Your task to perform on an android device: check the backup settings in the google photos Image 0: 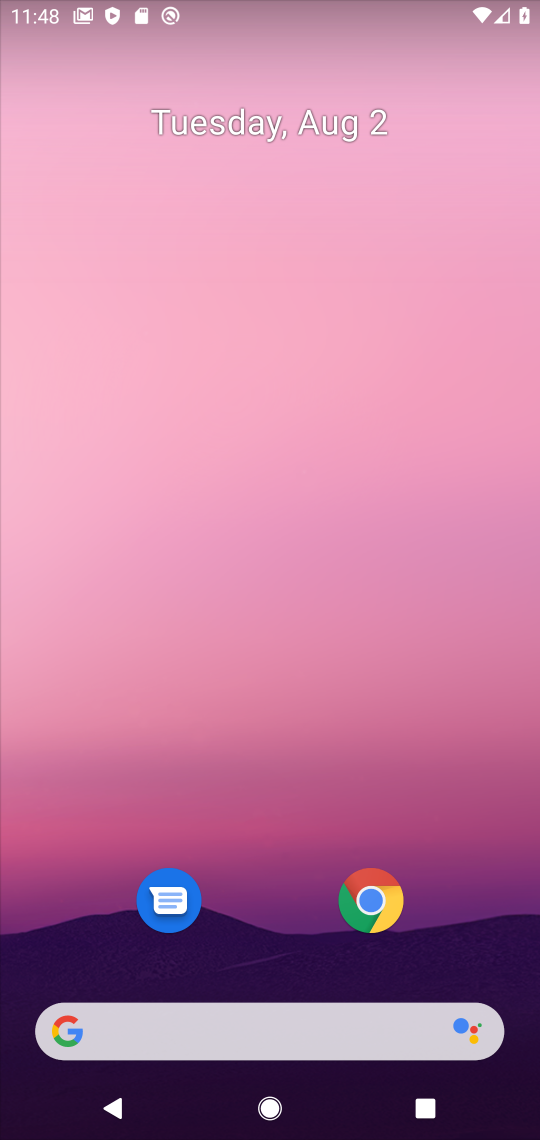
Step 0: drag from (242, 906) to (285, 207)
Your task to perform on an android device: check the backup settings in the google photos Image 1: 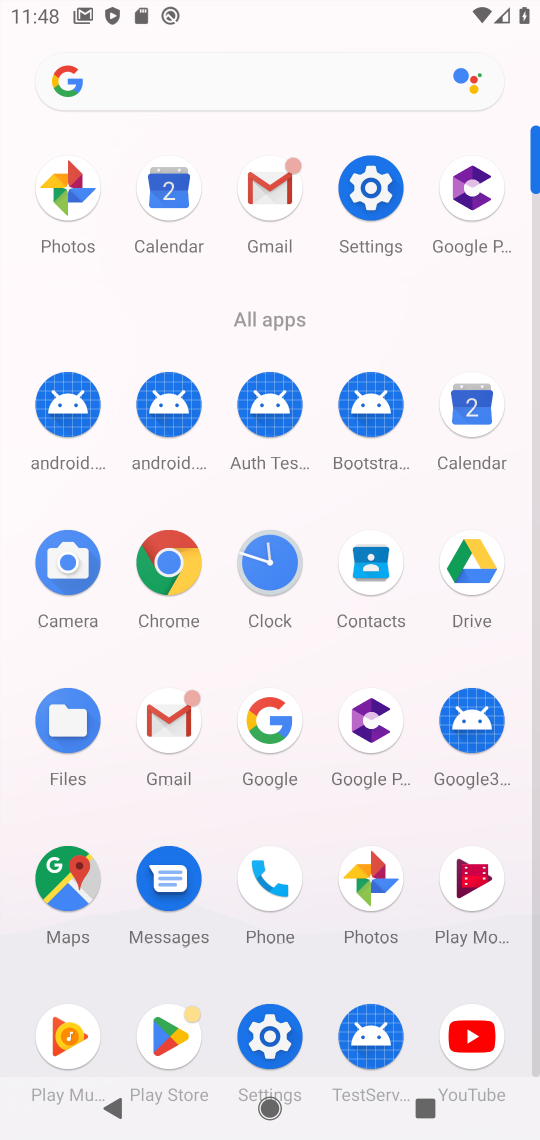
Step 1: click (368, 878)
Your task to perform on an android device: check the backup settings in the google photos Image 2: 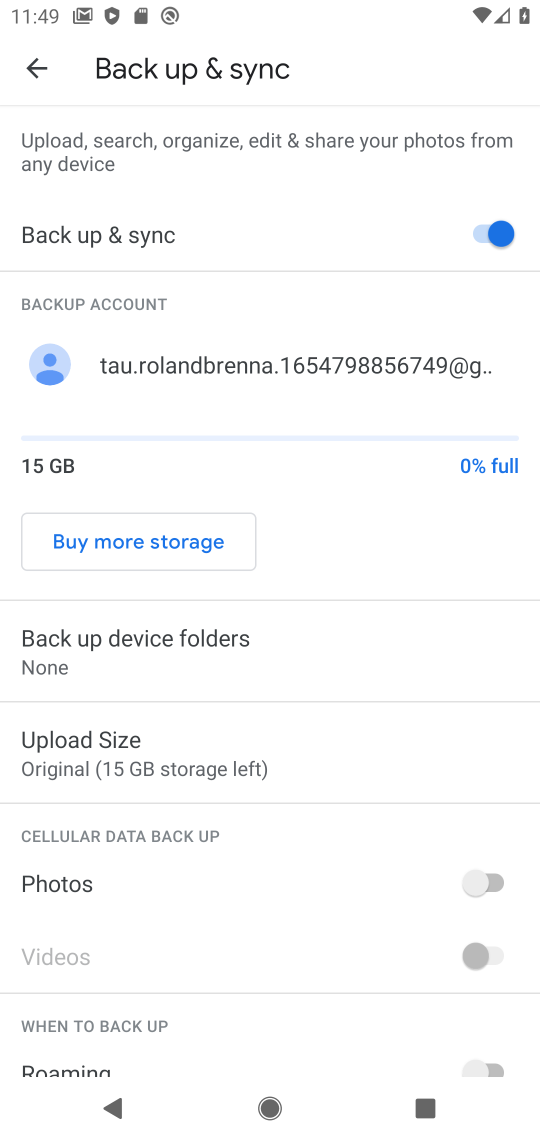
Step 2: task complete